Your task to perform on an android device: turn pop-ups off in chrome Image 0: 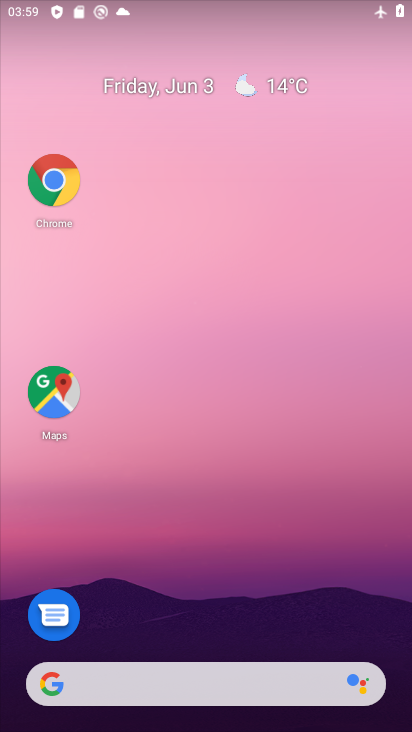
Step 0: click (55, 202)
Your task to perform on an android device: turn pop-ups off in chrome Image 1: 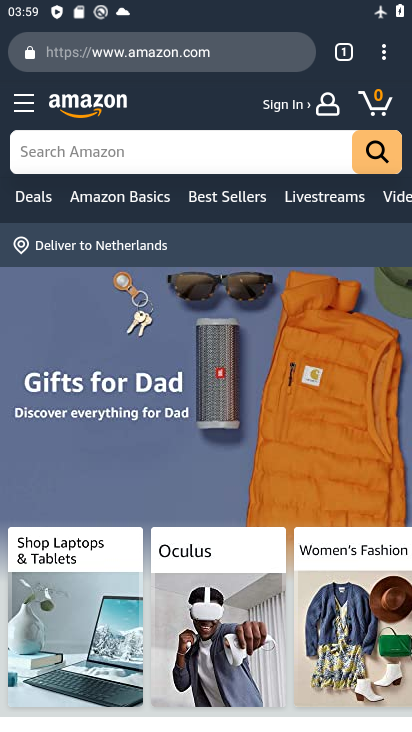
Step 1: click (387, 56)
Your task to perform on an android device: turn pop-ups off in chrome Image 2: 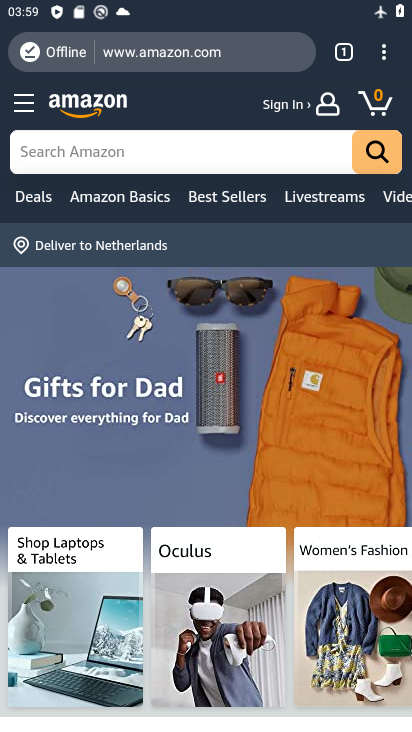
Step 2: click (384, 53)
Your task to perform on an android device: turn pop-ups off in chrome Image 3: 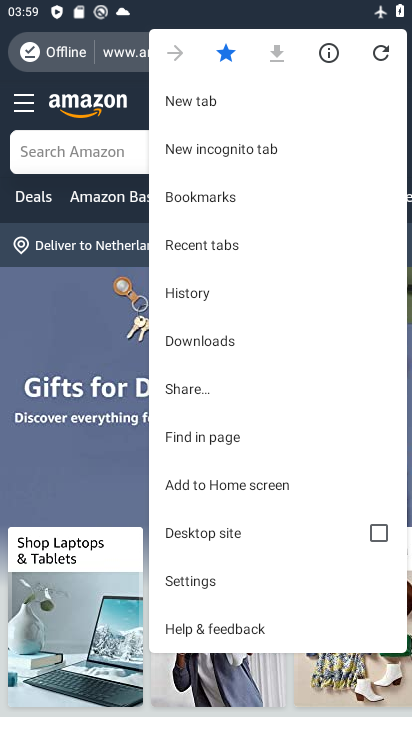
Step 3: click (198, 586)
Your task to perform on an android device: turn pop-ups off in chrome Image 4: 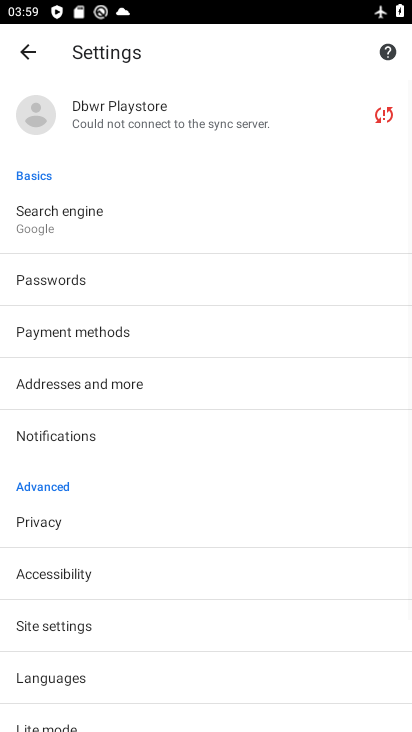
Step 4: click (66, 634)
Your task to perform on an android device: turn pop-ups off in chrome Image 5: 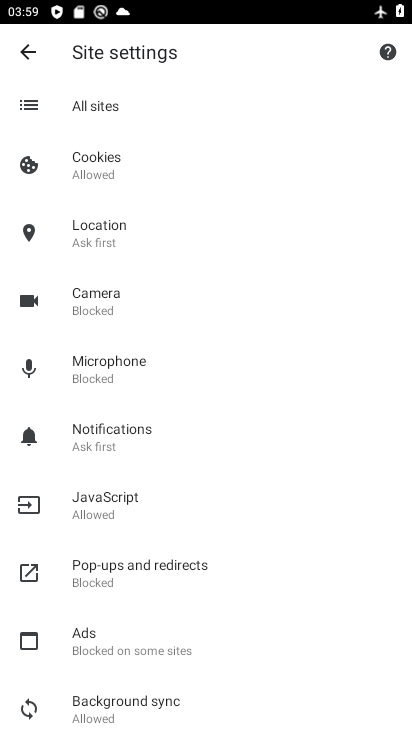
Step 5: click (108, 577)
Your task to perform on an android device: turn pop-ups off in chrome Image 6: 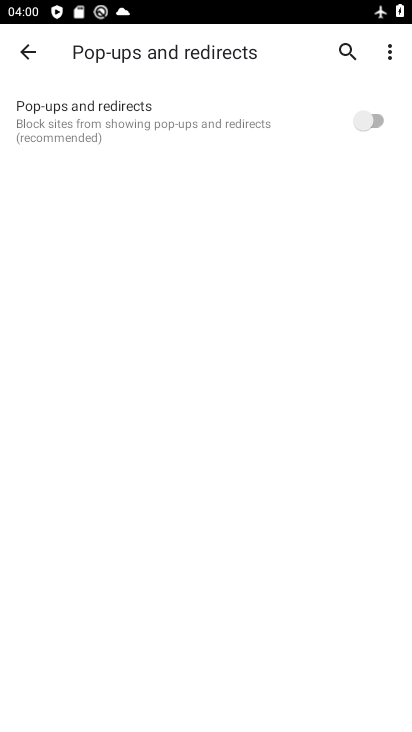
Step 6: task complete